Your task to perform on an android device: turn on showing notifications on the lock screen Image 0: 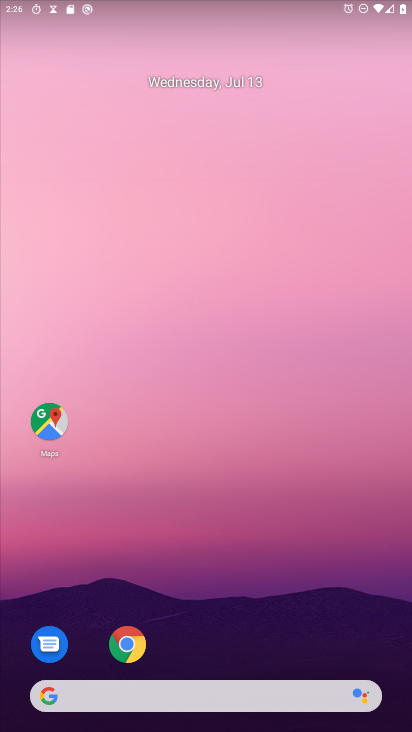
Step 0: press home button
Your task to perform on an android device: turn on showing notifications on the lock screen Image 1: 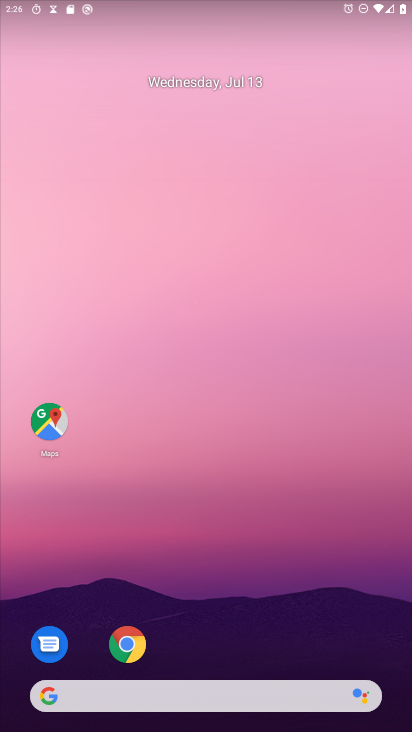
Step 1: drag from (239, 589) to (226, 82)
Your task to perform on an android device: turn on showing notifications on the lock screen Image 2: 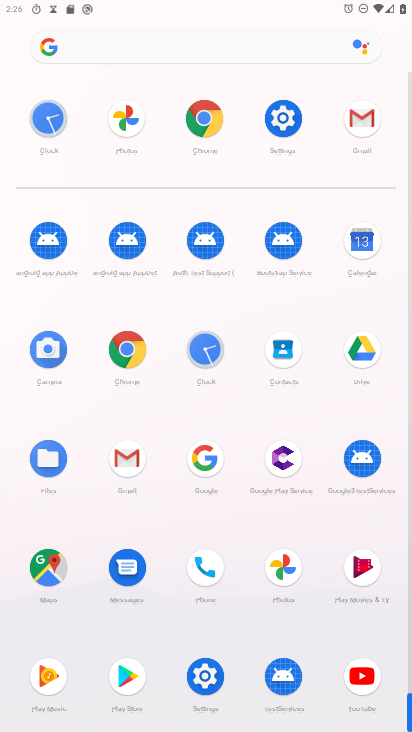
Step 2: click (282, 114)
Your task to perform on an android device: turn on showing notifications on the lock screen Image 3: 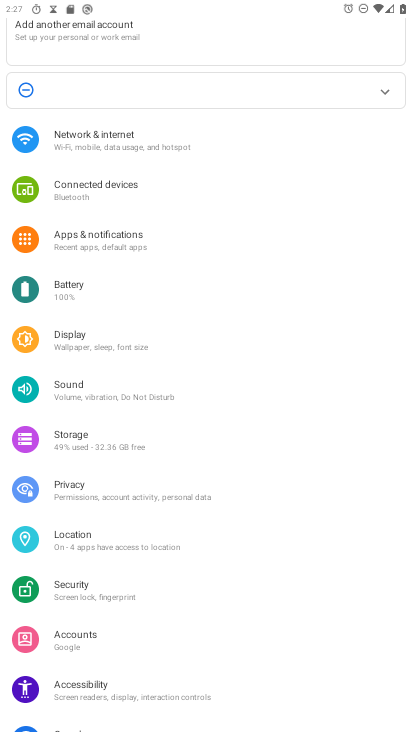
Step 3: click (99, 237)
Your task to perform on an android device: turn on showing notifications on the lock screen Image 4: 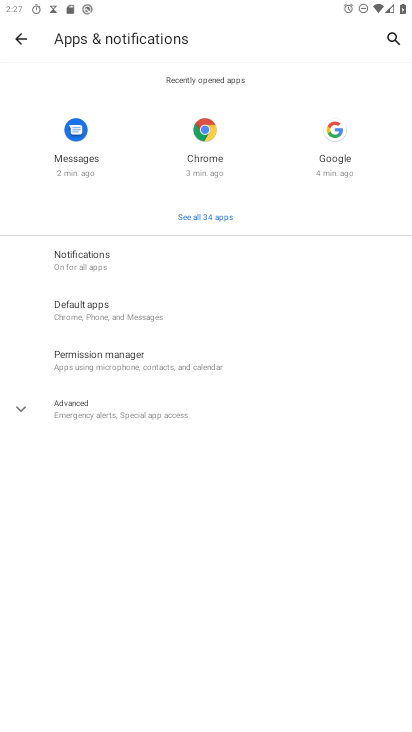
Step 4: click (81, 252)
Your task to perform on an android device: turn on showing notifications on the lock screen Image 5: 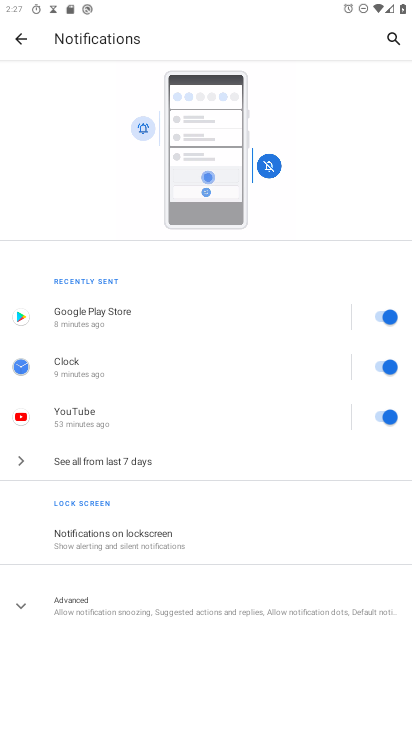
Step 5: click (86, 544)
Your task to perform on an android device: turn on showing notifications on the lock screen Image 6: 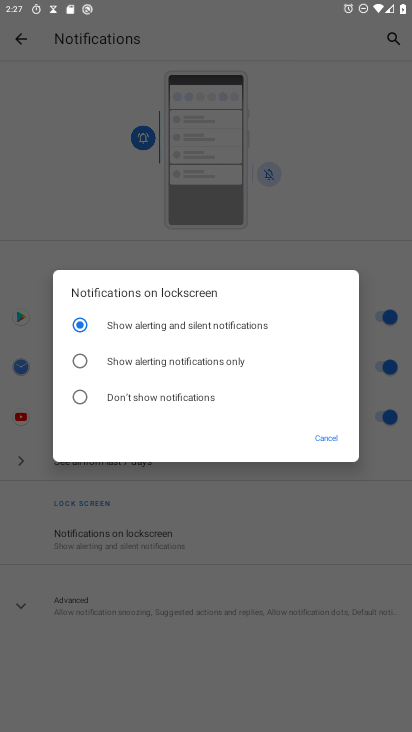
Step 6: task complete